Your task to perform on an android device: change the upload size in google photos Image 0: 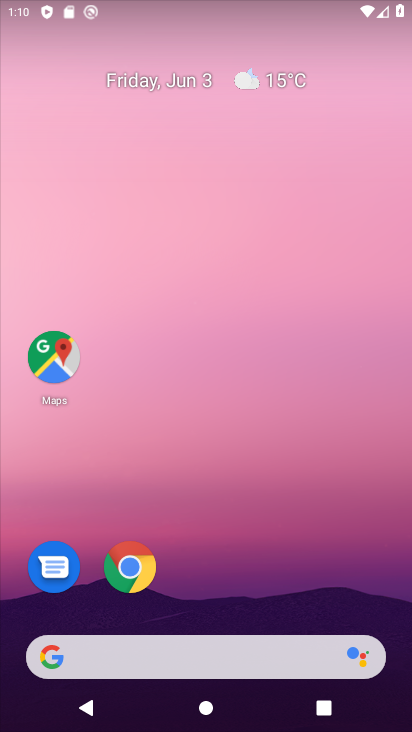
Step 0: drag from (231, 581) to (288, 60)
Your task to perform on an android device: change the upload size in google photos Image 1: 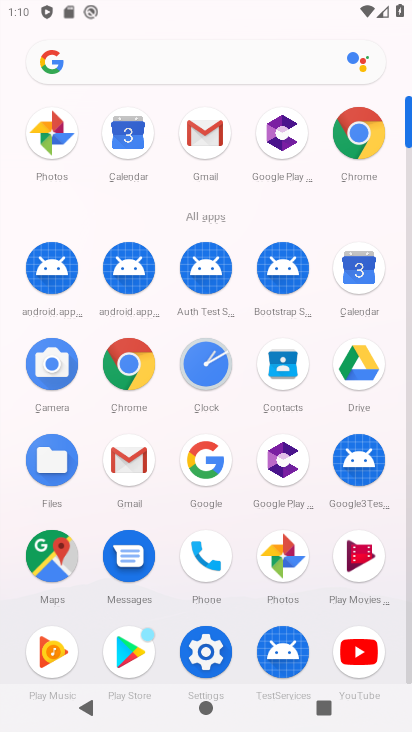
Step 1: click (284, 541)
Your task to perform on an android device: change the upload size in google photos Image 2: 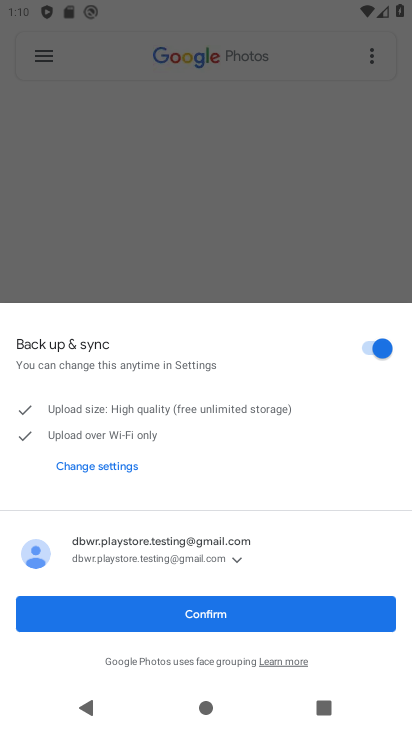
Step 2: click (300, 616)
Your task to perform on an android device: change the upload size in google photos Image 3: 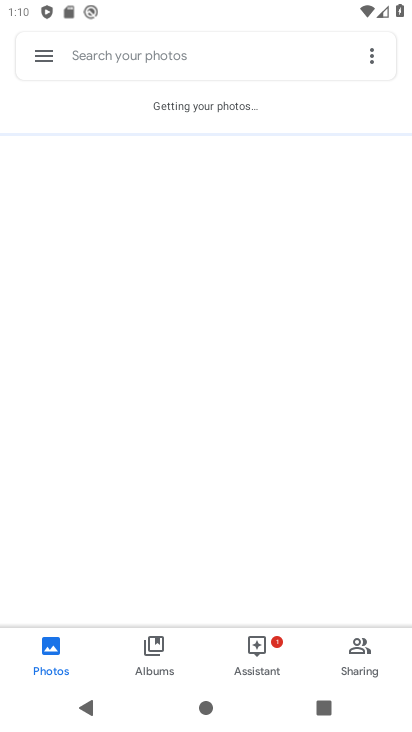
Step 3: click (37, 48)
Your task to perform on an android device: change the upload size in google photos Image 4: 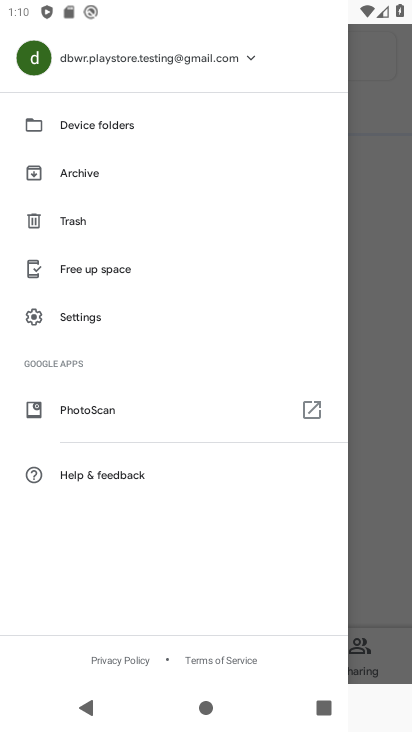
Step 4: click (78, 317)
Your task to perform on an android device: change the upload size in google photos Image 5: 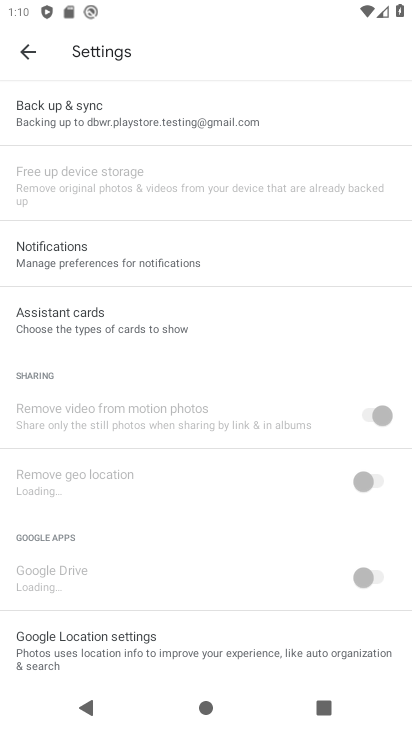
Step 5: click (96, 104)
Your task to perform on an android device: change the upload size in google photos Image 6: 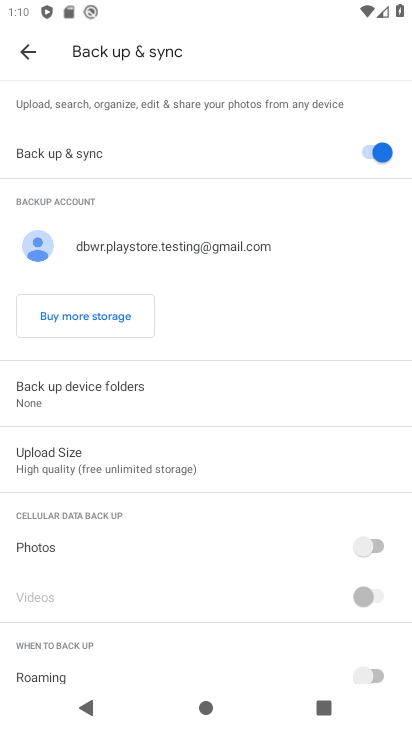
Step 6: click (77, 468)
Your task to perform on an android device: change the upload size in google photos Image 7: 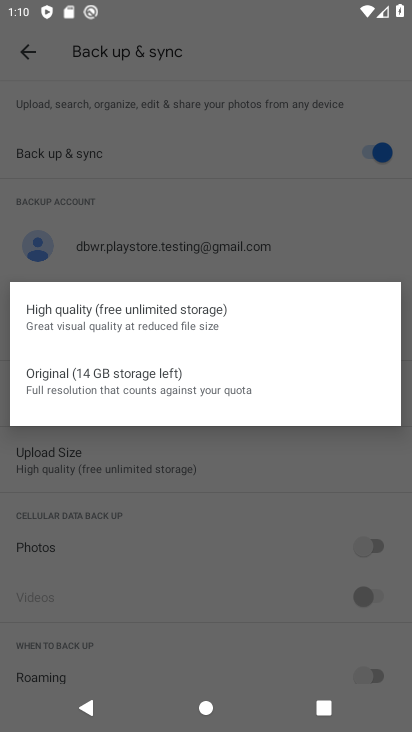
Step 7: click (85, 383)
Your task to perform on an android device: change the upload size in google photos Image 8: 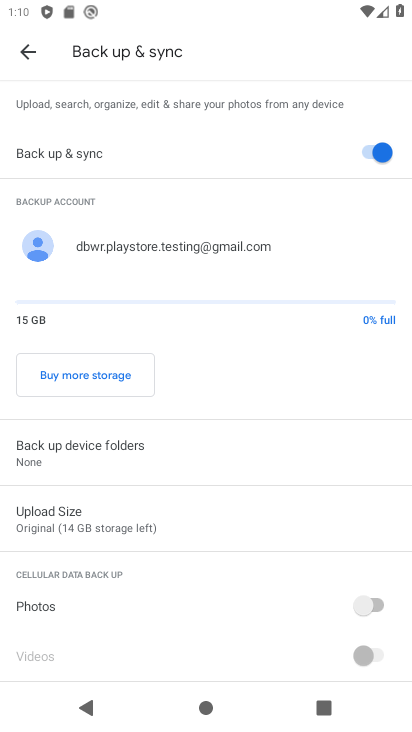
Step 8: task complete